Your task to perform on an android device: turn on data saver in the chrome app Image 0: 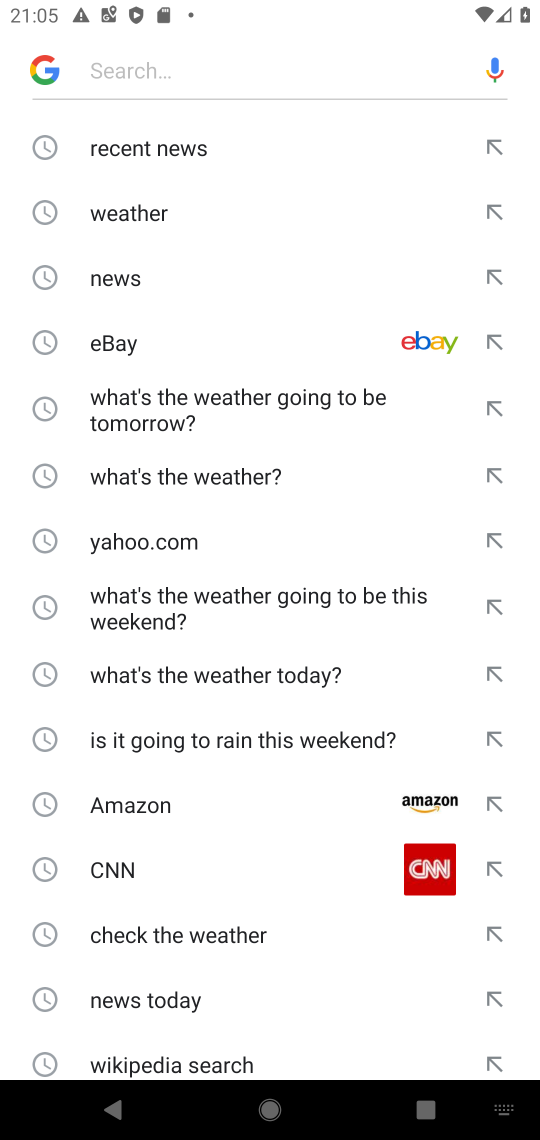
Step 0: press home button
Your task to perform on an android device: turn on data saver in the chrome app Image 1: 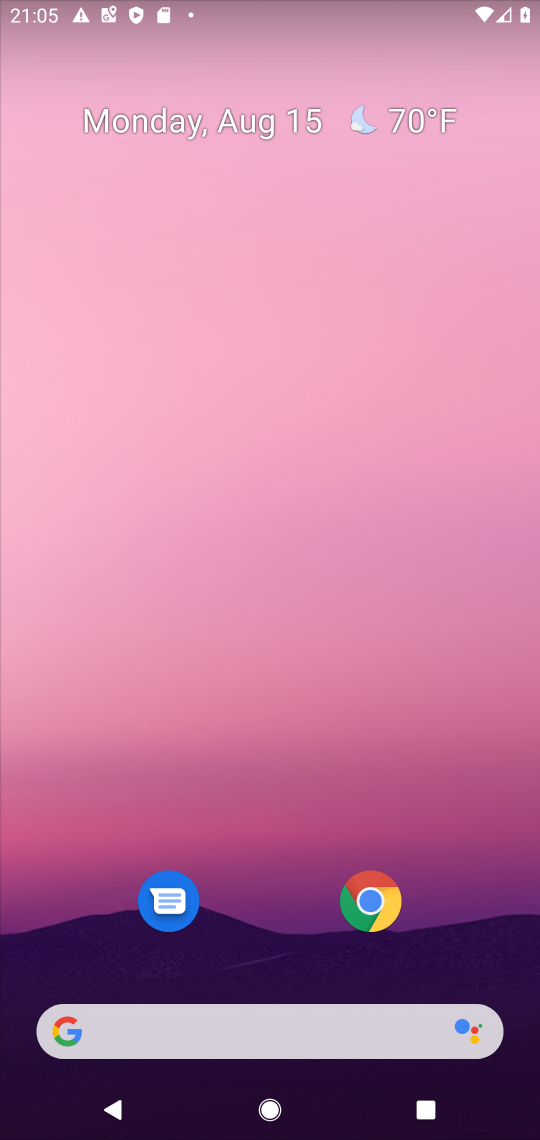
Step 1: click (386, 903)
Your task to perform on an android device: turn on data saver in the chrome app Image 2: 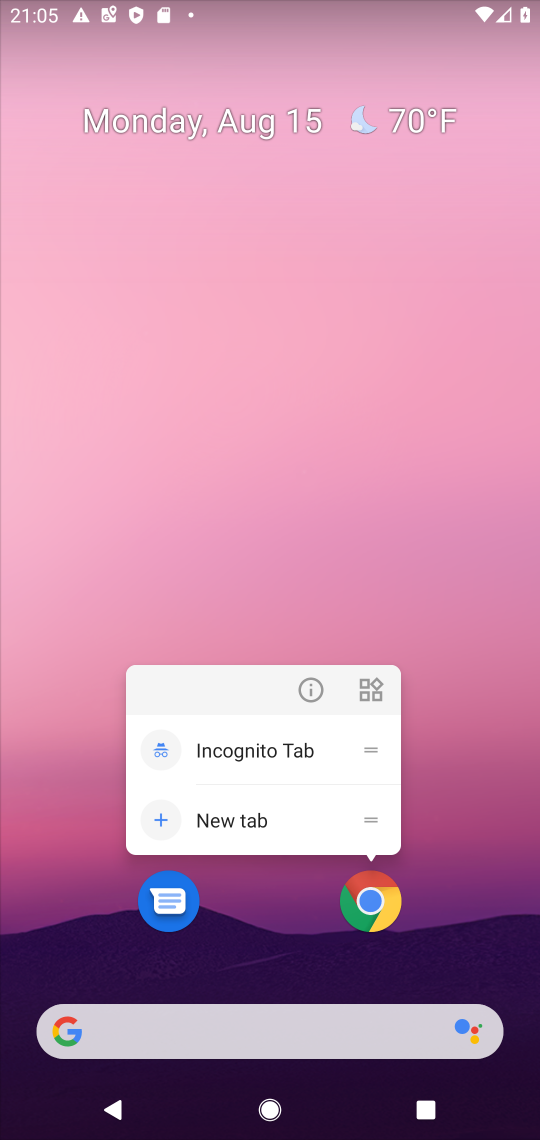
Step 2: click (390, 900)
Your task to perform on an android device: turn on data saver in the chrome app Image 3: 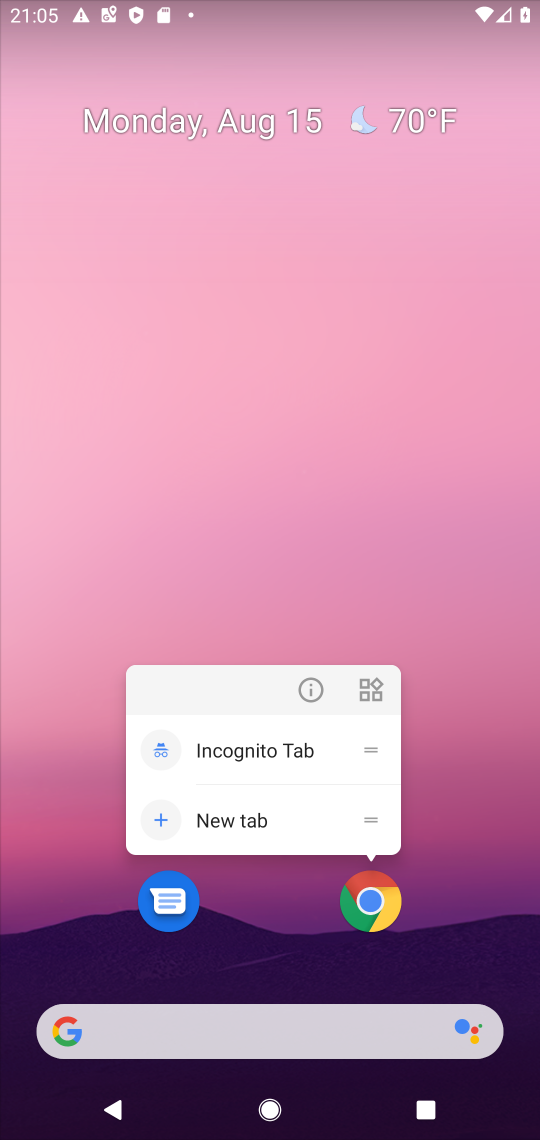
Step 3: click (379, 899)
Your task to perform on an android device: turn on data saver in the chrome app Image 4: 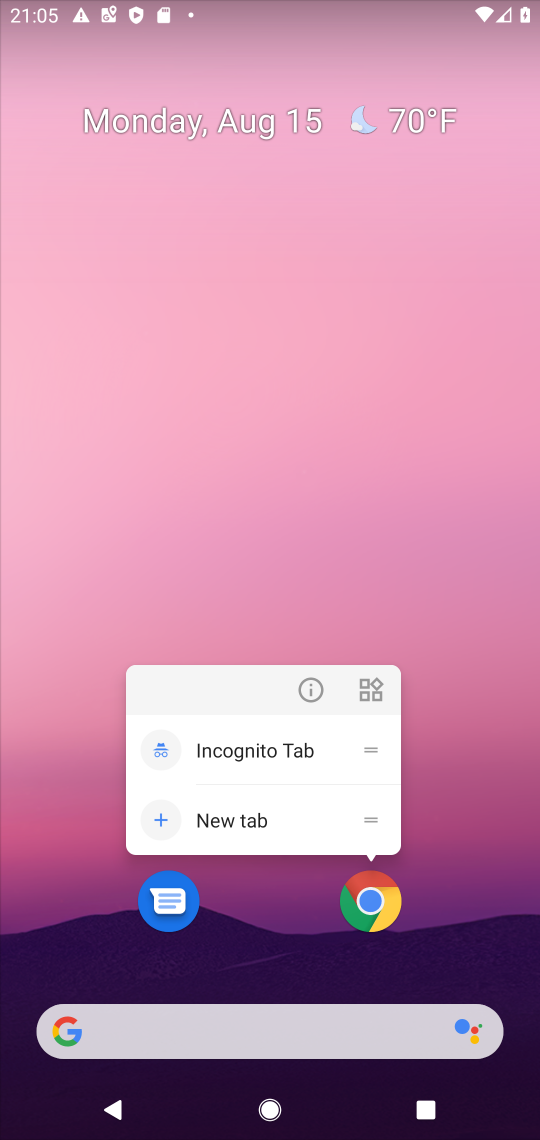
Step 4: click (376, 891)
Your task to perform on an android device: turn on data saver in the chrome app Image 5: 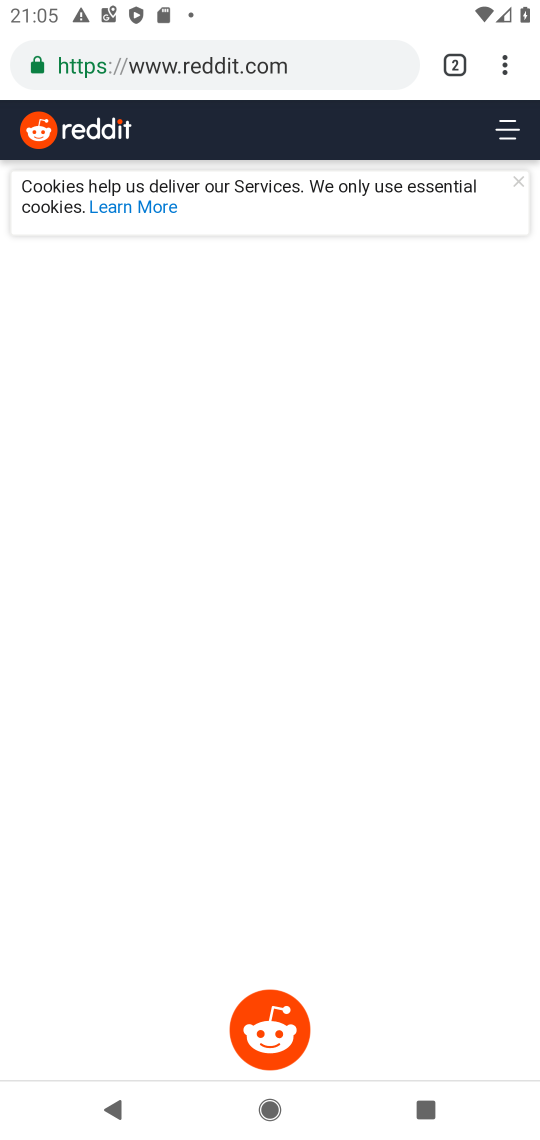
Step 5: click (507, 58)
Your task to perform on an android device: turn on data saver in the chrome app Image 6: 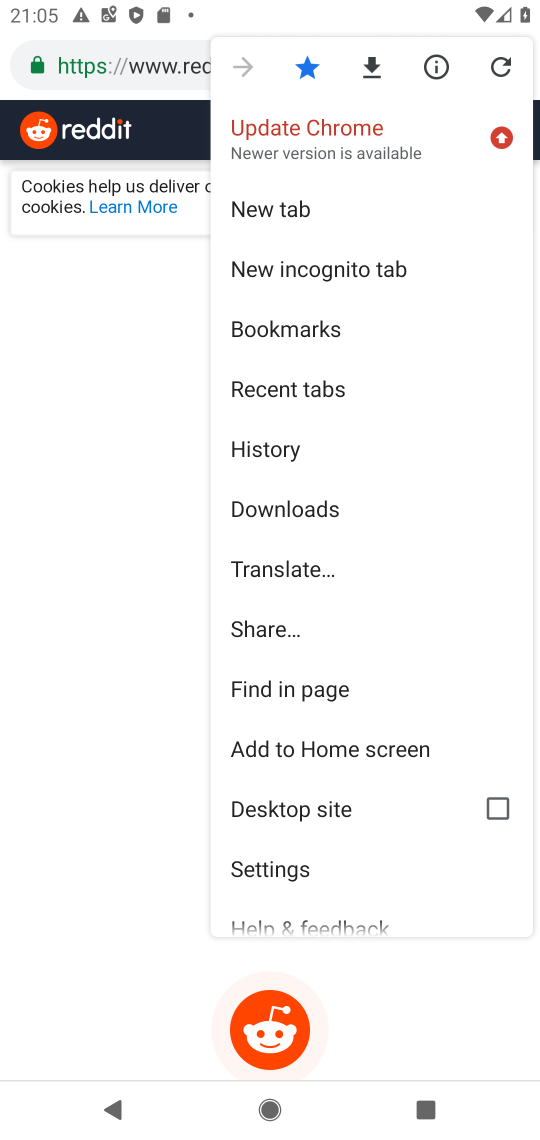
Step 6: click (282, 863)
Your task to perform on an android device: turn on data saver in the chrome app Image 7: 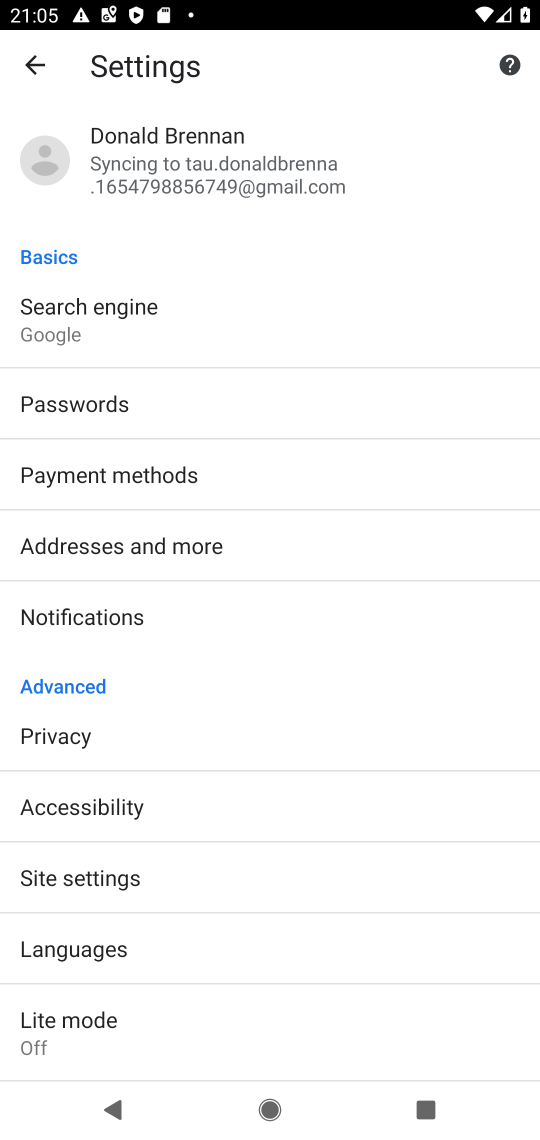
Step 7: click (101, 1024)
Your task to perform on an android device: turn on data saver in the chrome app Image 8: 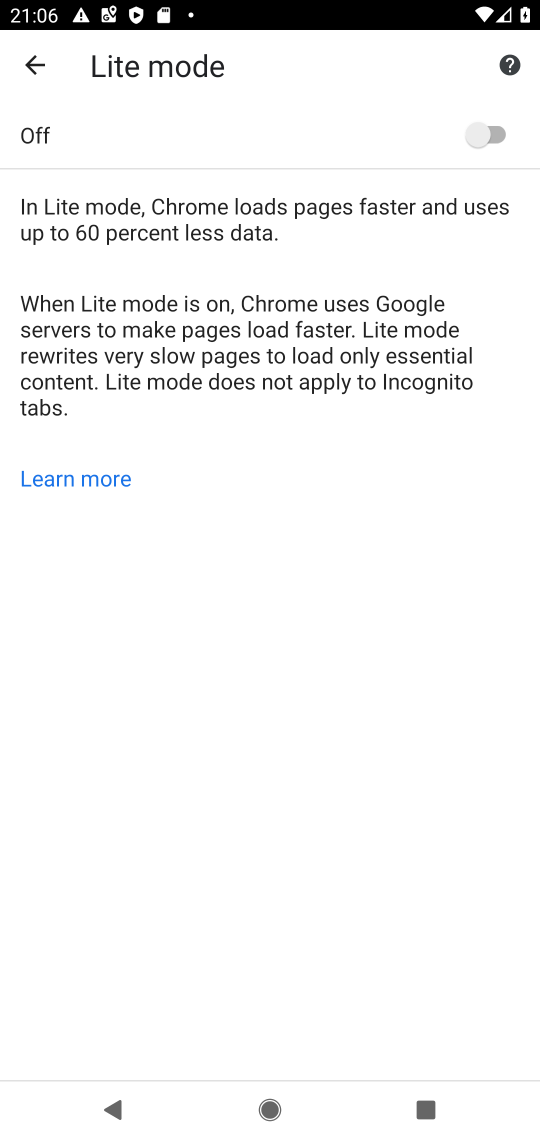
Step 8: click (504, 148)
Your task to perform on an android device: turn on data saver in the chrome app Image 9: 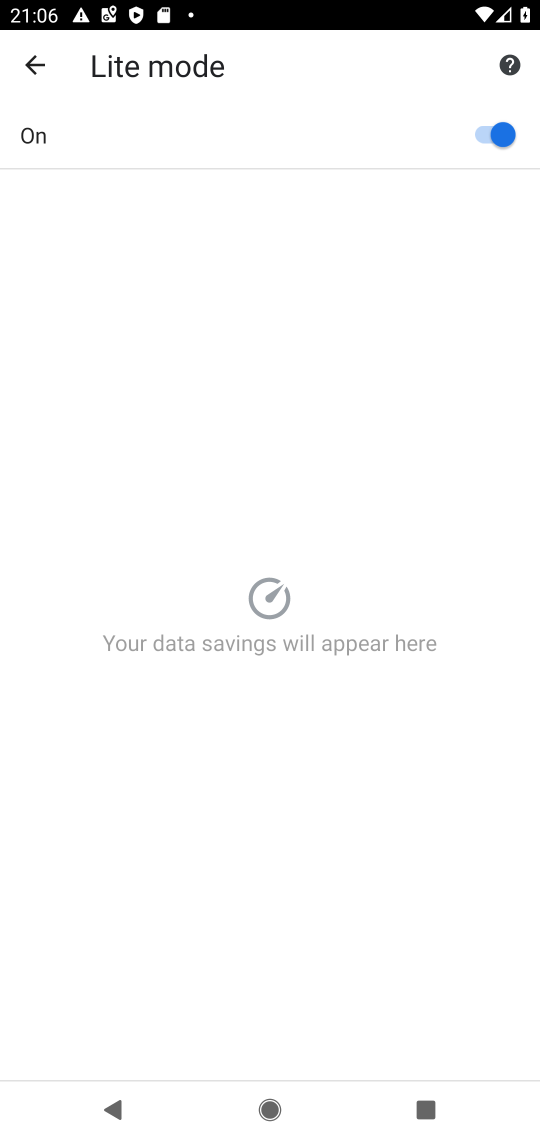
Step 9: task complete